Your task to perform on an android device: What is the news today? Image 0: 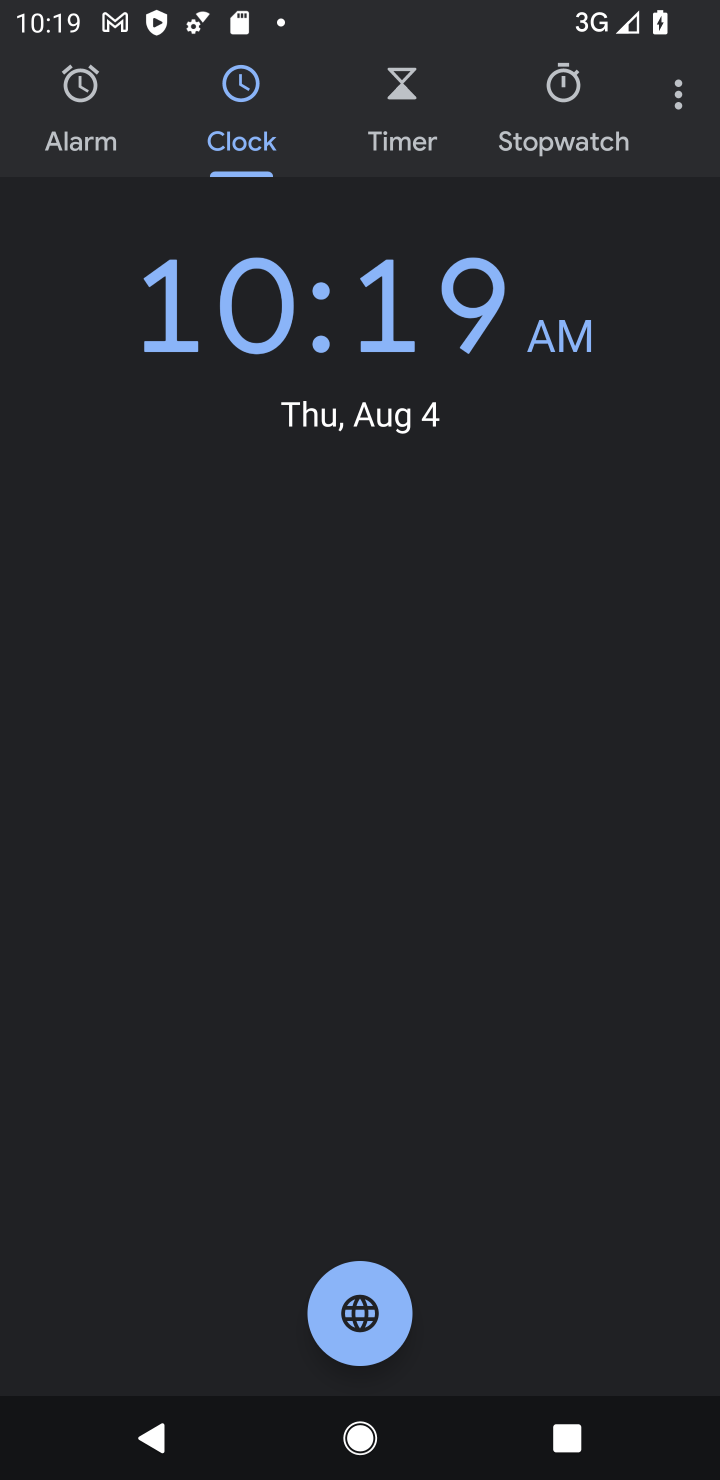
Step 0: press home button
Your task to perform on an android device: What is the news today? Image 1: 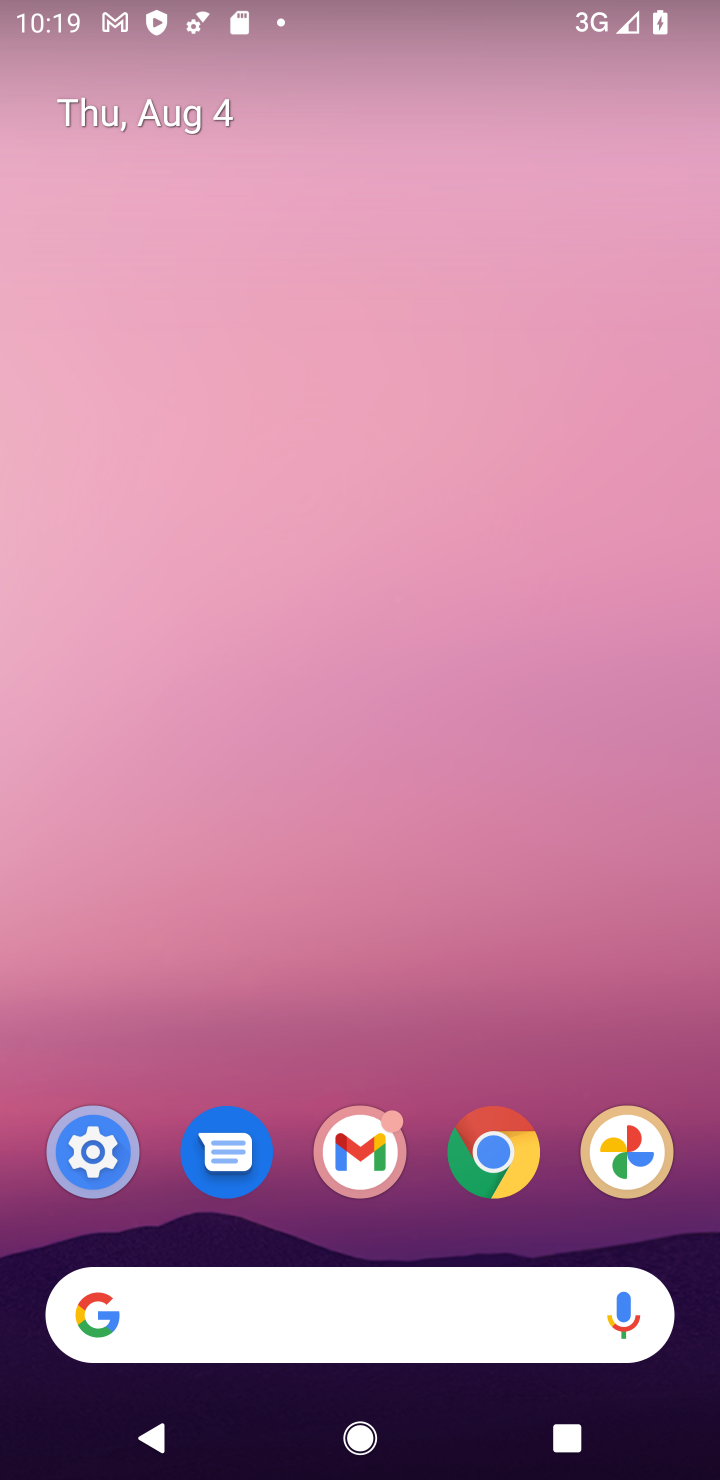
Step 1: drag from (406, 1240) to (495, 73)
Your task to perform on an android device: What is the news today? Image 2: 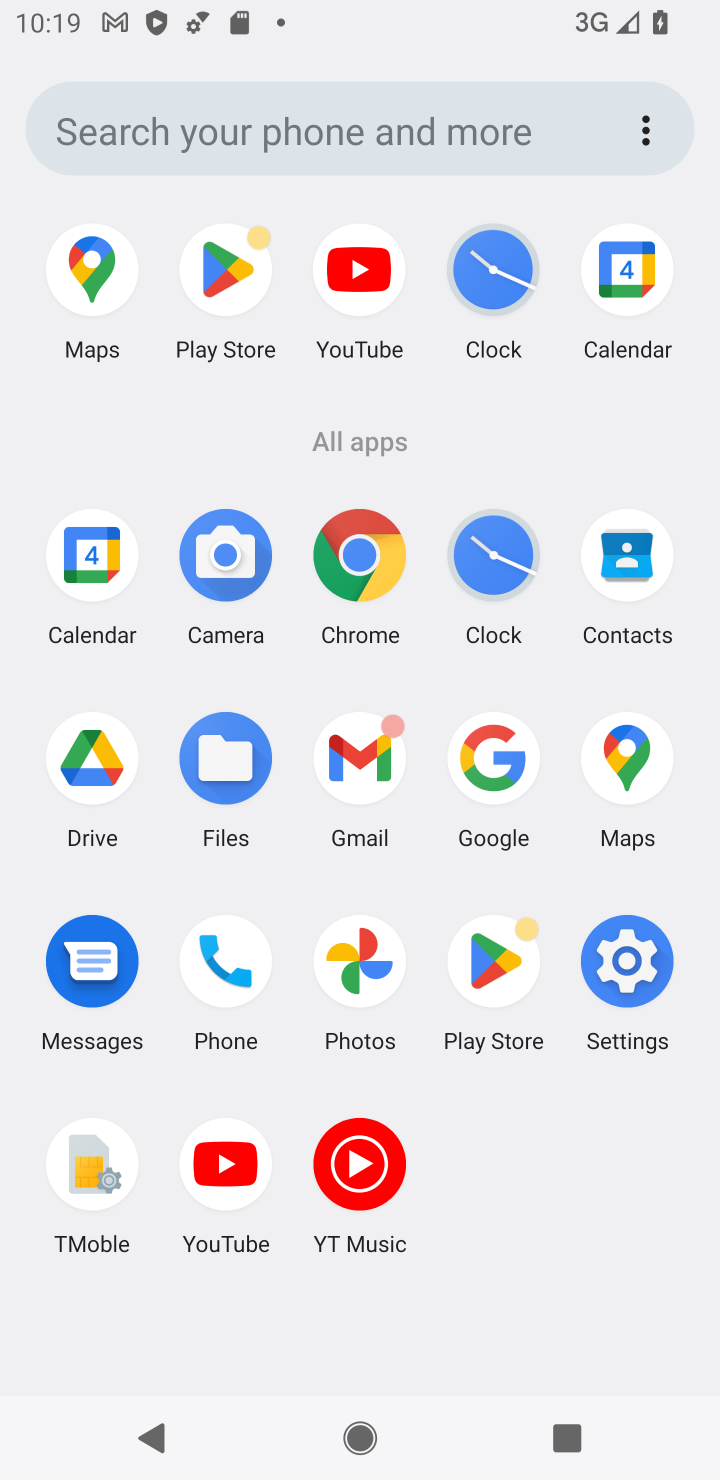
Step 2: click (362, 133)
Your task to perform on an android device: What is the news today? Image 3: 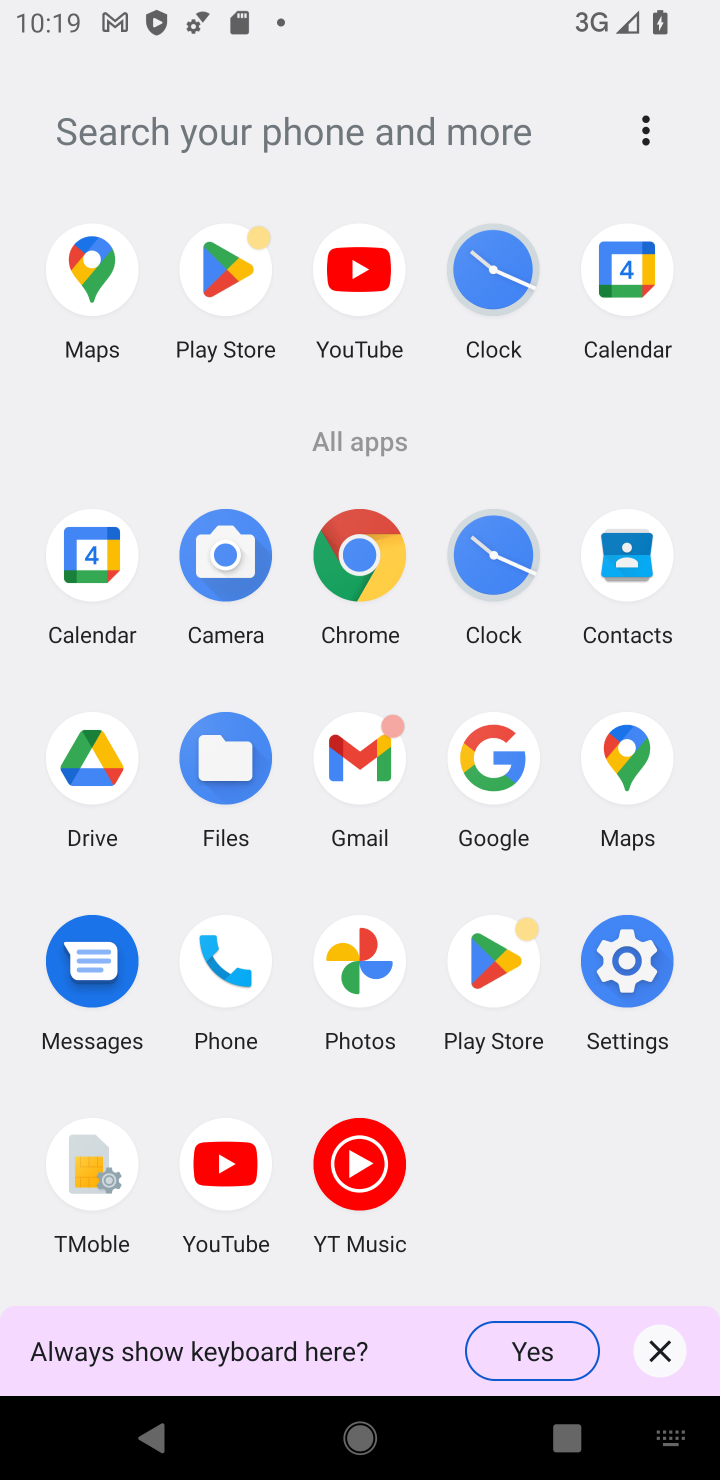
Step 3: type "news today ?"
Your task to perform on an android device: What is the news today? Image 4: 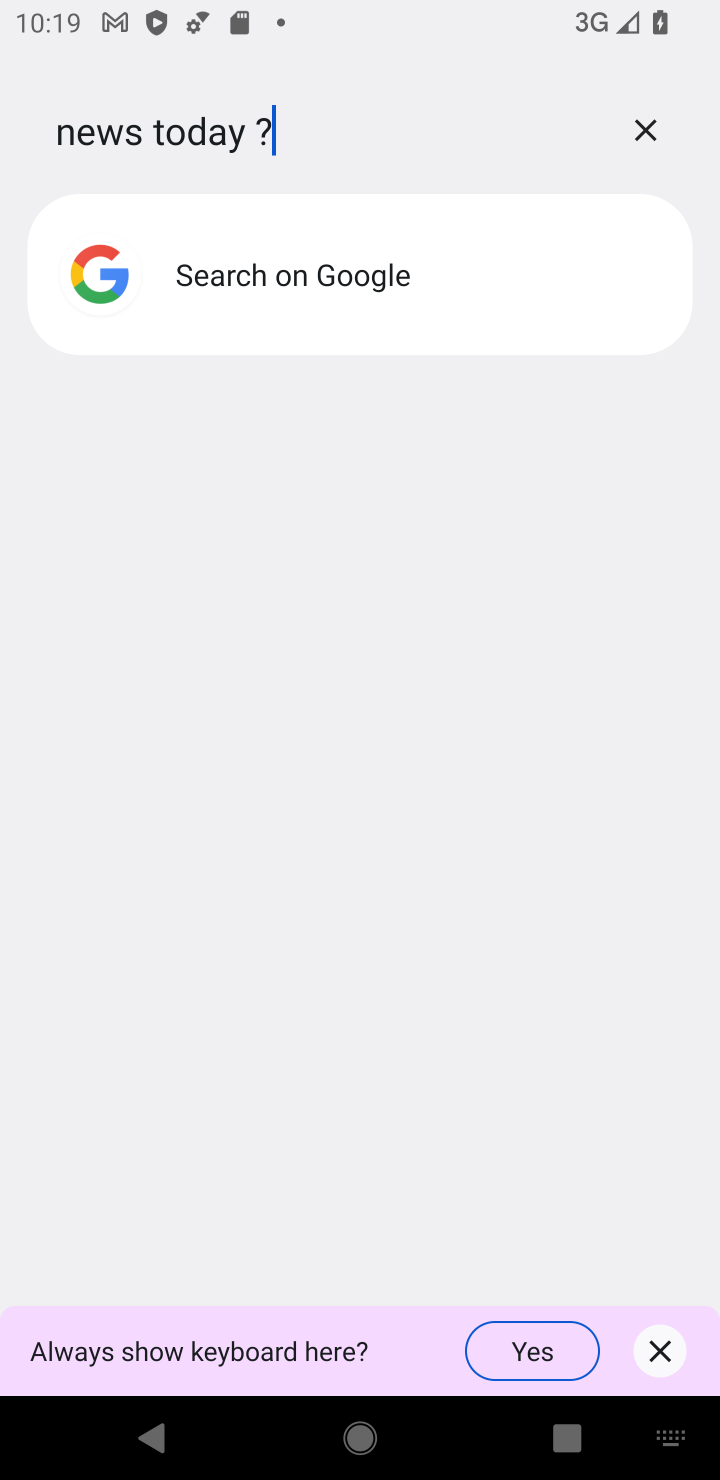
Step 4: click (216, 291)
Your task to perform on an android device: What is the news today? Image 5: 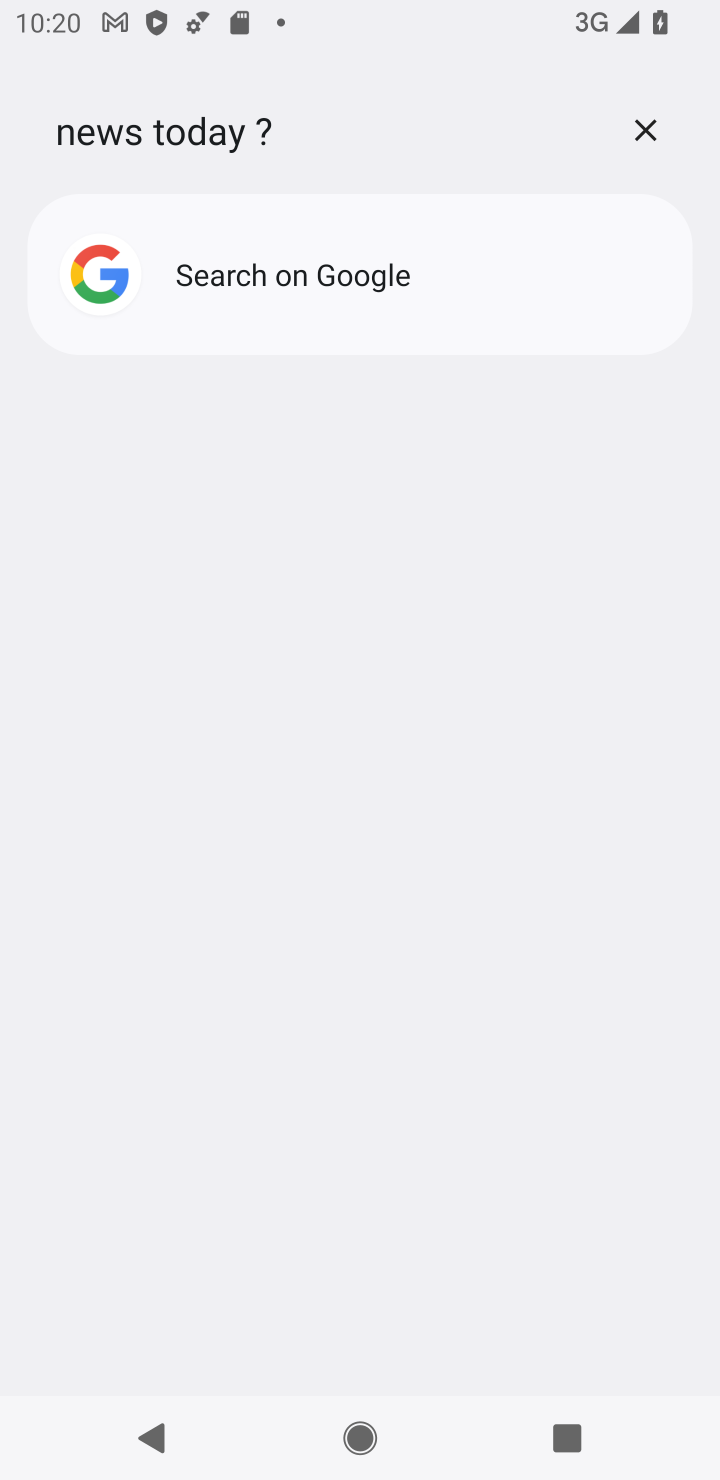
Step 5: click (269, 301)
Your task to perform on an android device: What is the news today? Image 6: 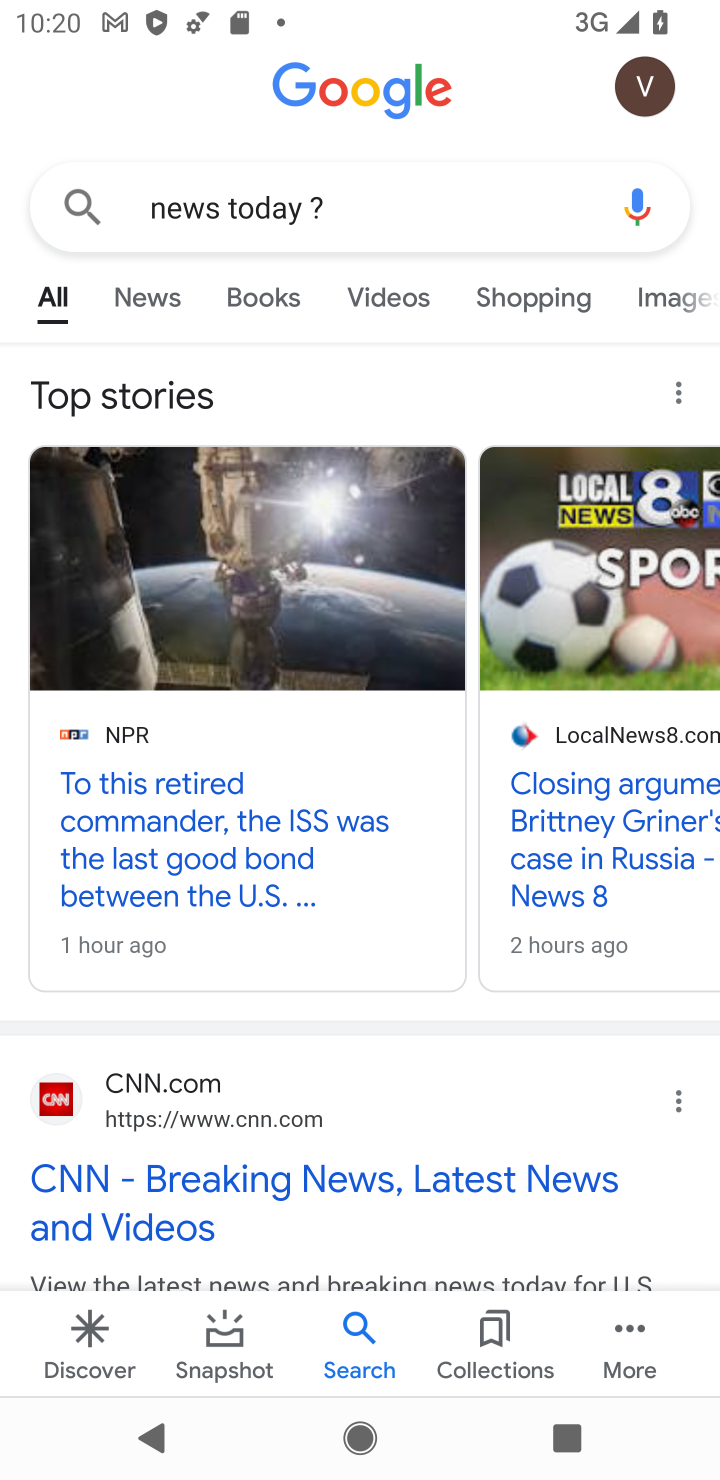
Step 6: task complete